Your task to perform on an android device: turn notification dots on Image 0: 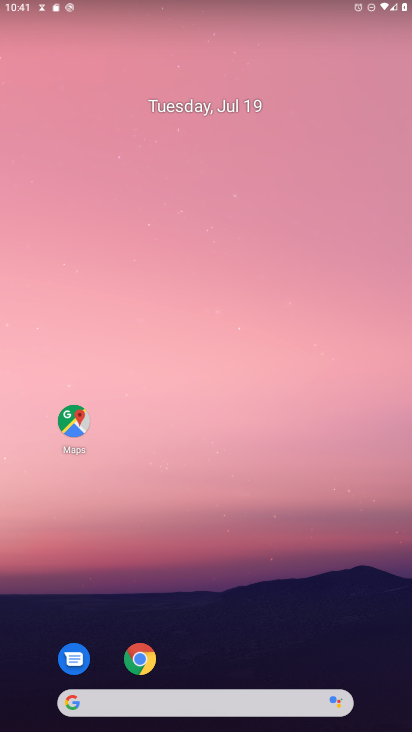
Step 0: drag from (304, 670) to (304, 37)
Your task to perform on an android device: turn notification dots on Image 1: 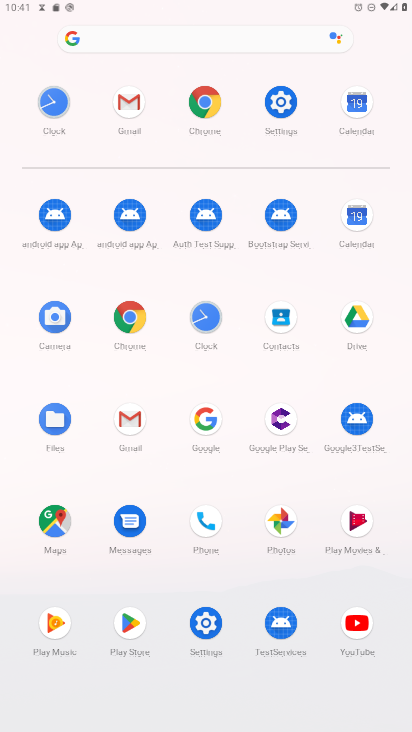
Step 1: click (287, 97)
Your task to perform on an android device: turn notification dots on Image 2: 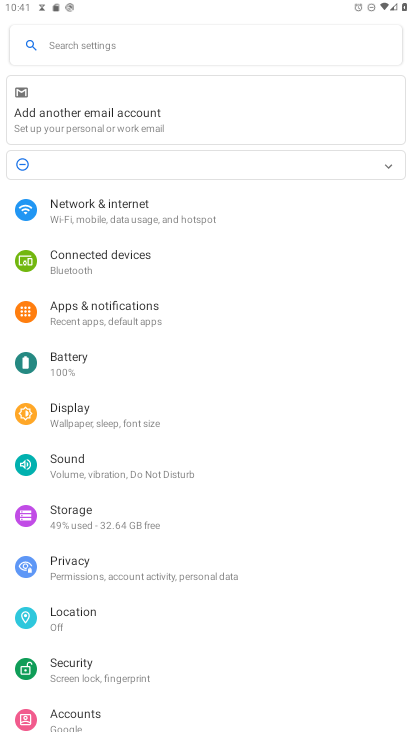
Step 2: click (126, 38)
Your task to perform on an android device: turn notification dots on Image 3: 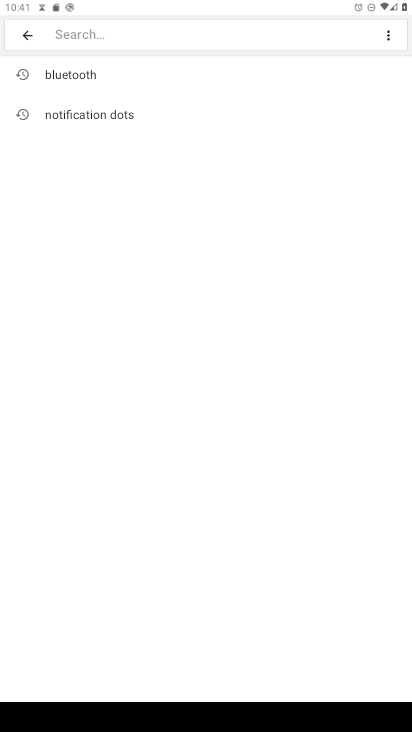
Step 3: click (161, 105)
Your task to perform on an android device: turn notification dots on Image 4: 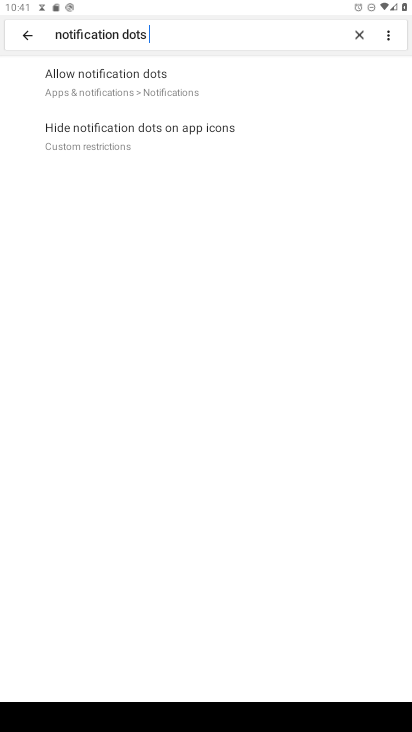
Step 4: click (143, 63)
Your task to perform on an android device: turn notification dots on Image 5: 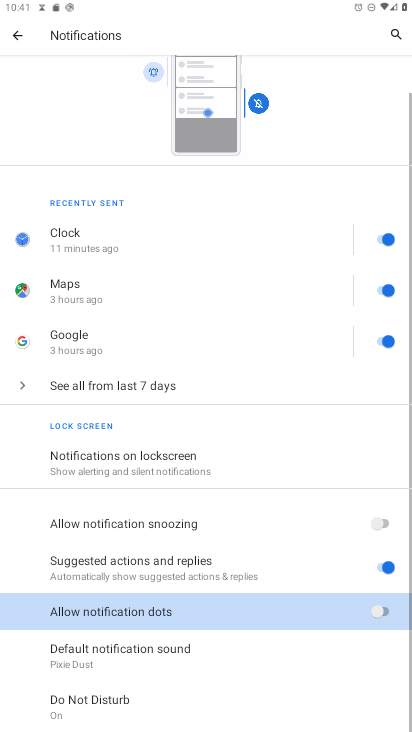
Step 5: click (383, 605)
Your task to perform on an android device: turn notification dots on Image 6: 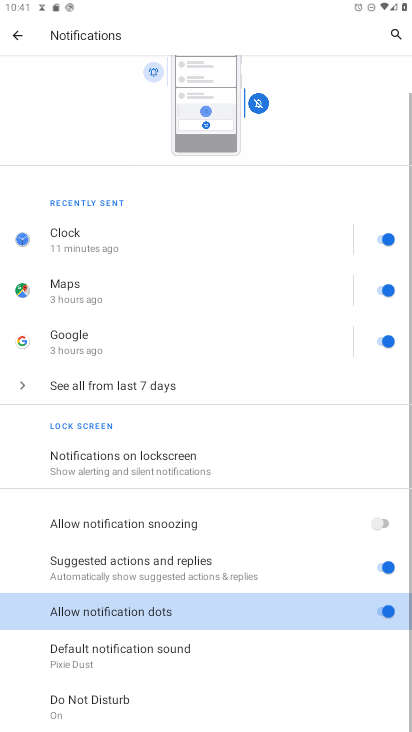
Step 6: task complete